Your task to perform on an android device: Do I have any events today? Image 0: 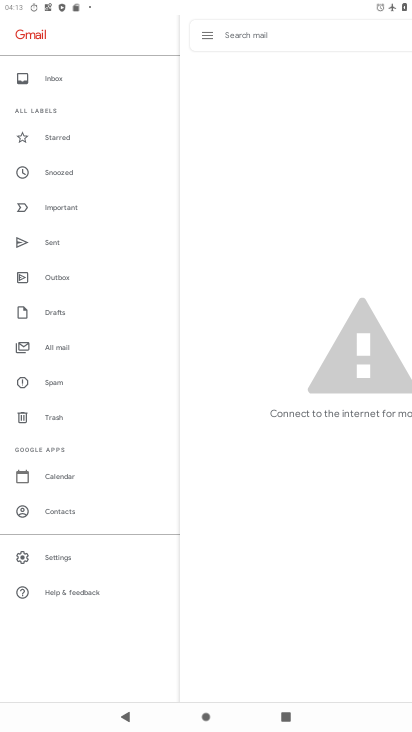
Step 0: press home button
Your task to perform on an android device: Do I have any events today? Image 1: 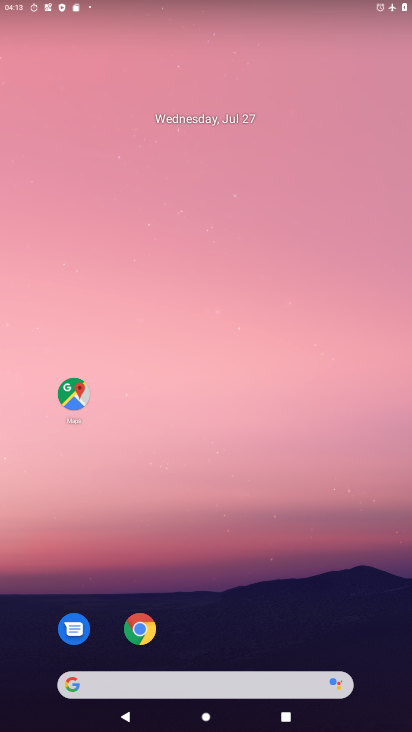
Step 1: drag from (327, 557) to (273, 40)
Your task to perform on an android device: Do I have any events today? Image 2: 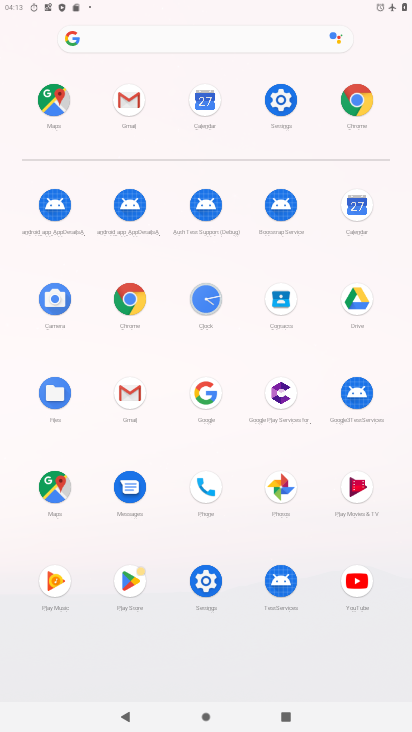
Step 2: click (358, 199)
Your task to perform on an android device: Do I have any events today? Image 3: 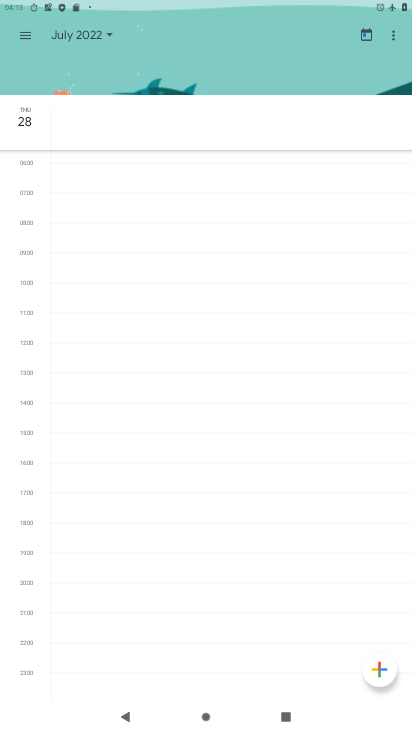
Step 3: task complete